Your task to perform on an android device: empty trash in the gmail app Image 0: 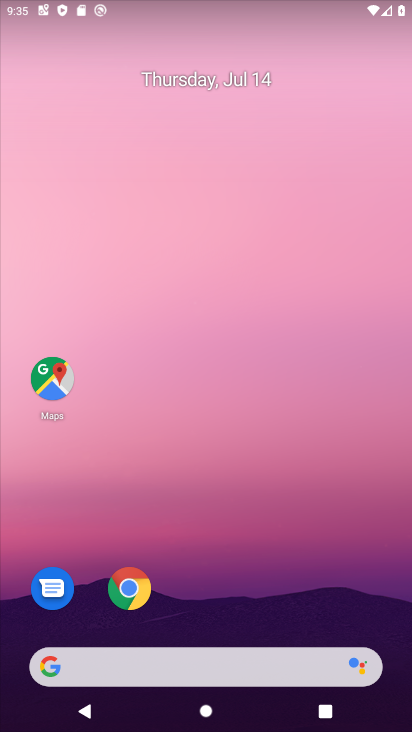
Step 0: drag from (244, 636) to (255, 136)
Your task to perform on an android device: empty trash in the gmail app Image 1: 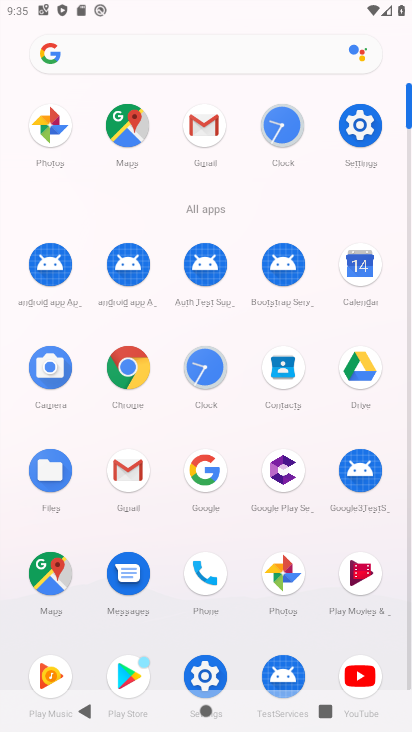
Step 1: click (128, 481)
Your task to perform on an android device: empty trash in the gmail app Image 2: 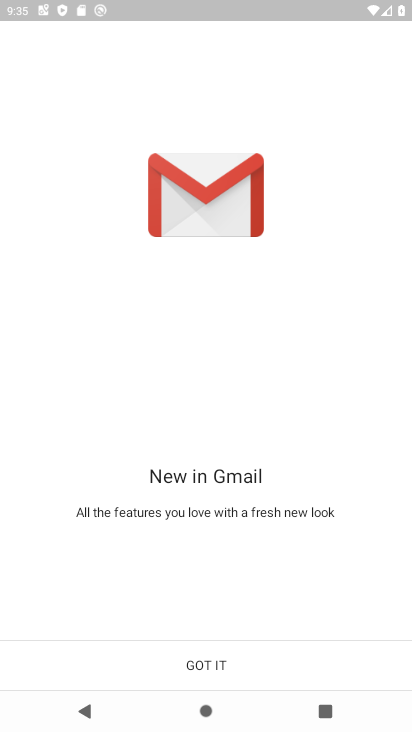
Step 2: click (217, 682)
Your task to perform on an android device: empty trash in the gmail app Image 3: 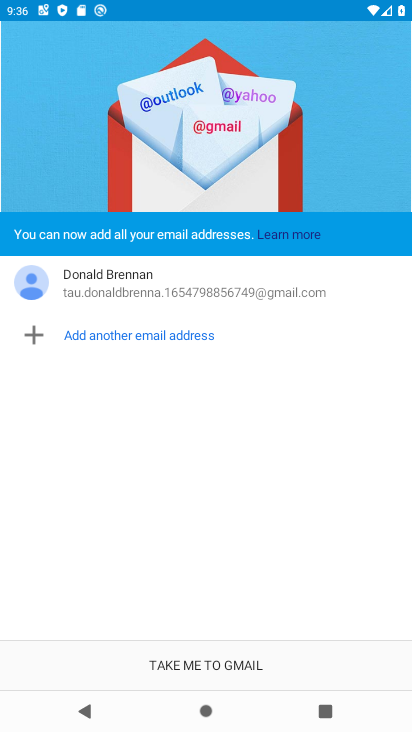
Step 3: click (221, 678)
Your task to perform on an android device: empty trash in the gmail app Image 4: 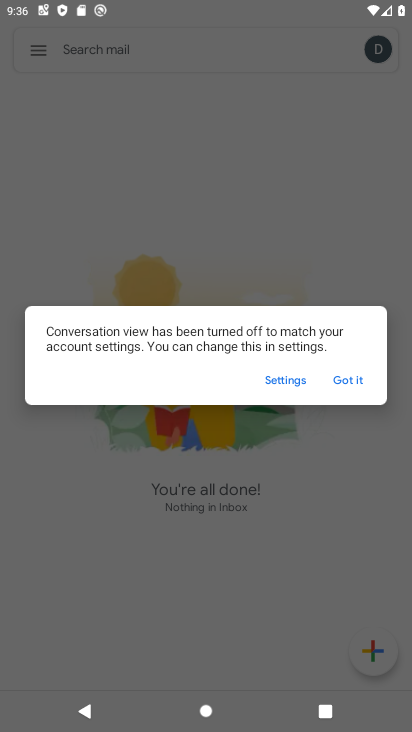
Step 4: click (355, 387)
Your task to perform on an android device: empty trash in the gmail app Image 5: 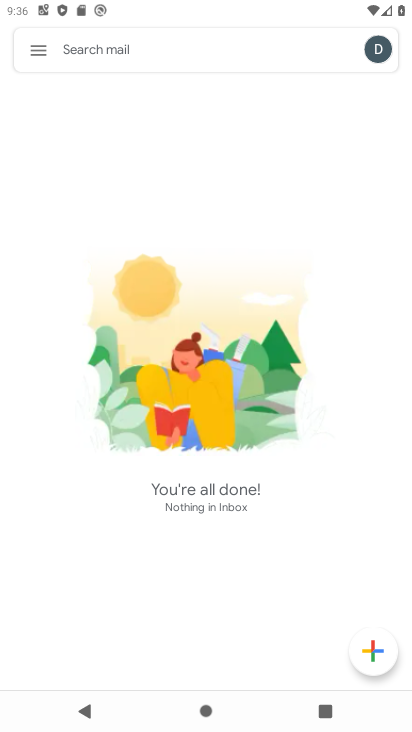
Step 5: click (50, 43)
Your task to perform on an android device: empty trash in the gmail app Image 6: 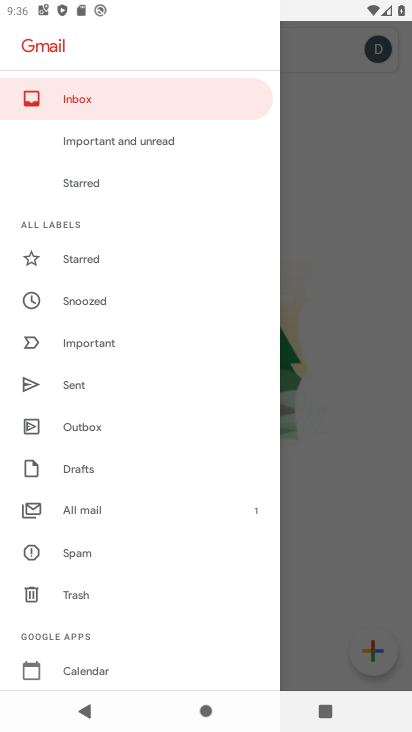
Step 6: click (95, 585)
Your task to perform on an android device: empty trash in the gmail app Image 7: 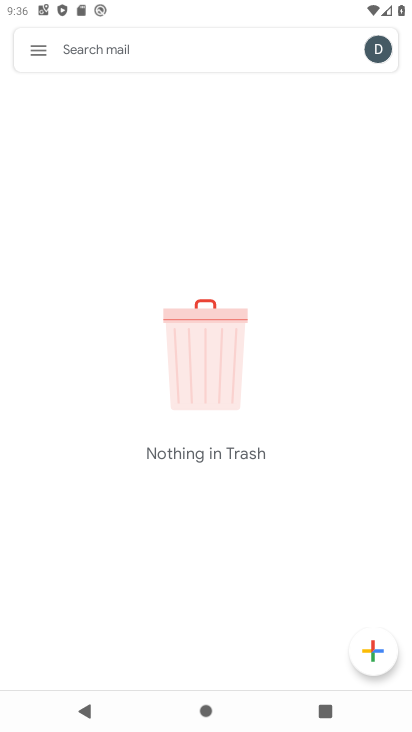
Step 7: task complete